Your task to perform on an android device: change the clock style Image 0: 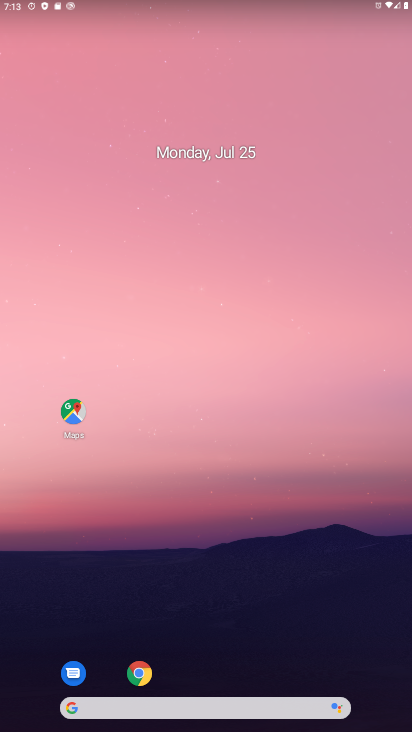
Step 0: drag from (331, 662) to (118, 68)
Your task to perform on an android device: change the clock style Image 1: 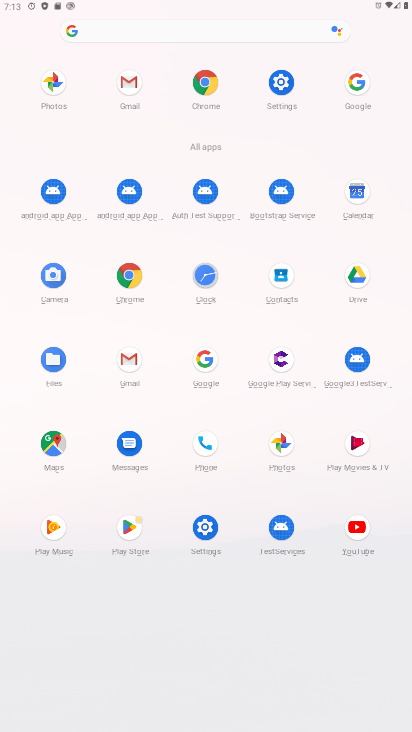
Step 1: click (198, 265)
Your task to perform on an android device: change the clock style Image 2: 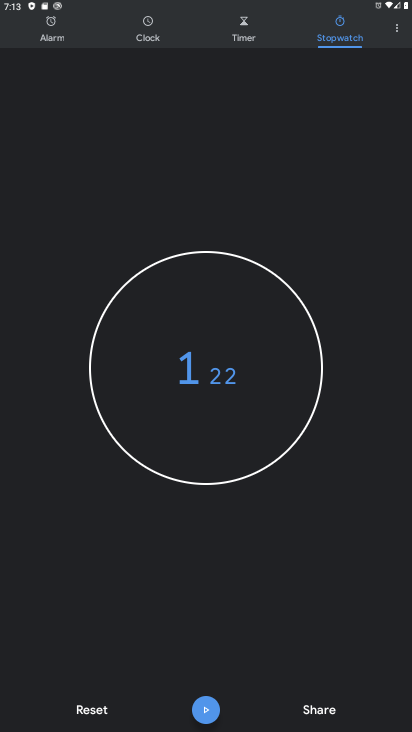
Step 2: click (391, 20)
Your task to perform on an android device: change the clock style Image 3: 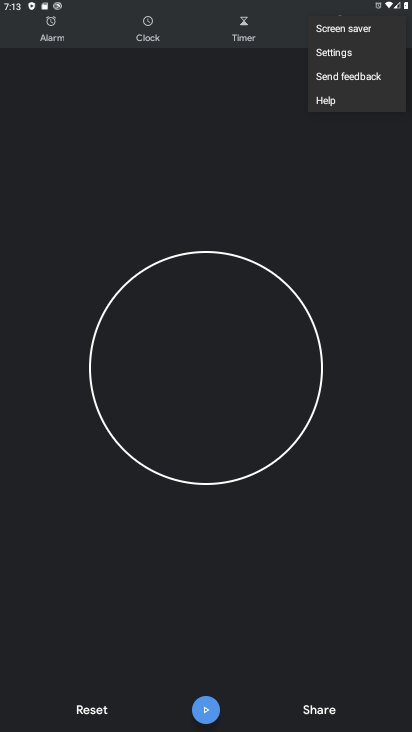
Step 3: click (351, 56)
Your task to perform on an android device: change the clock style Image 4: 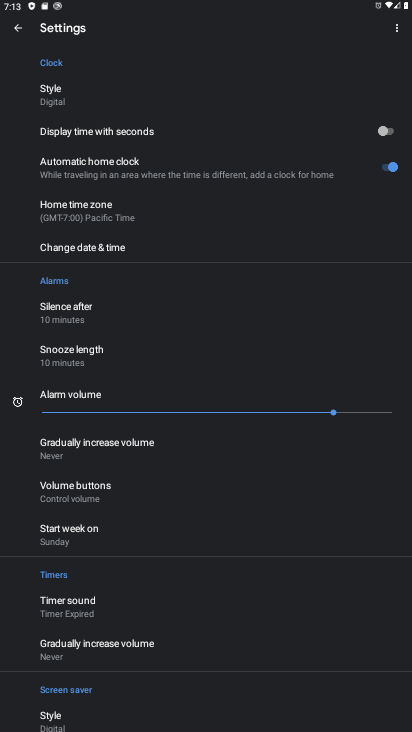
Step 4: click (65, 94)
Your task to perform on an android device: change the clock style Image 5: 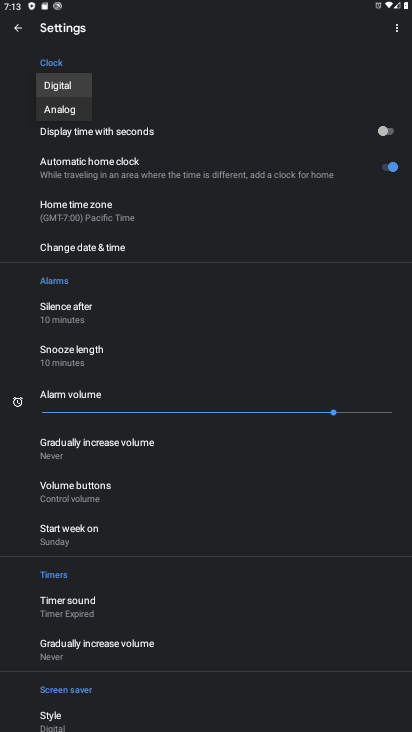
Step 5: click (60, 116)
Your task to perform on an android device: change the clock style Image 6: 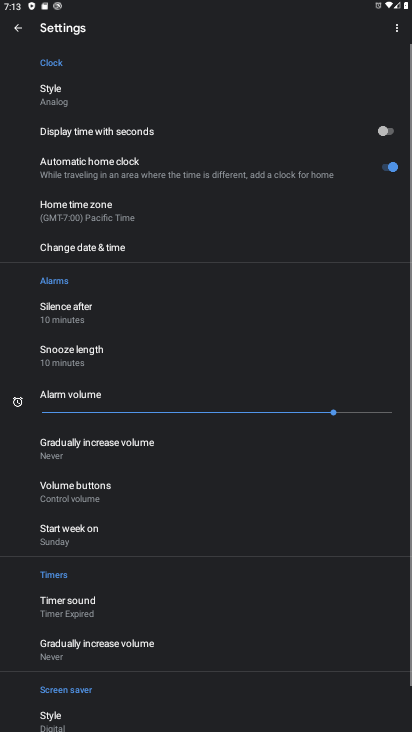
Step 6: task complete